Your task to perform on an android device: Do I have any events today? Image 0: 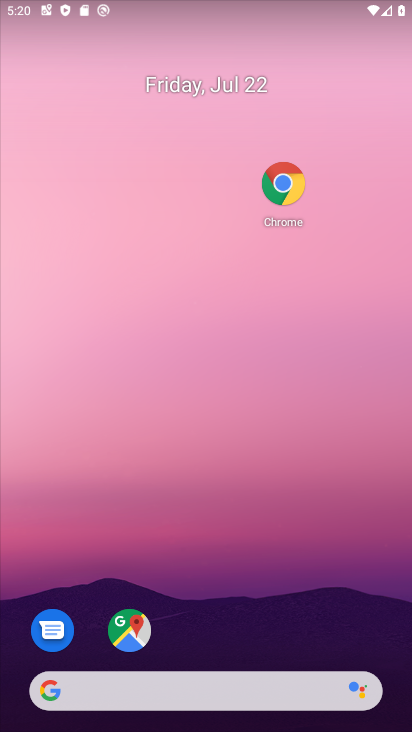
Step 0: drag from (184, 640) to (193, 304)
Your task to perform on an android device: Do I have any events today? Image 1: 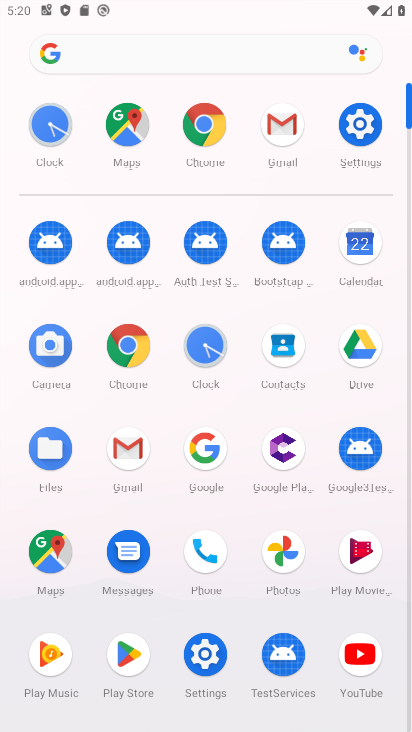
Step 1: drag from (193, 626) to (220, 458)
Your task to perform on an android device: Do I have any events today? Image 2: 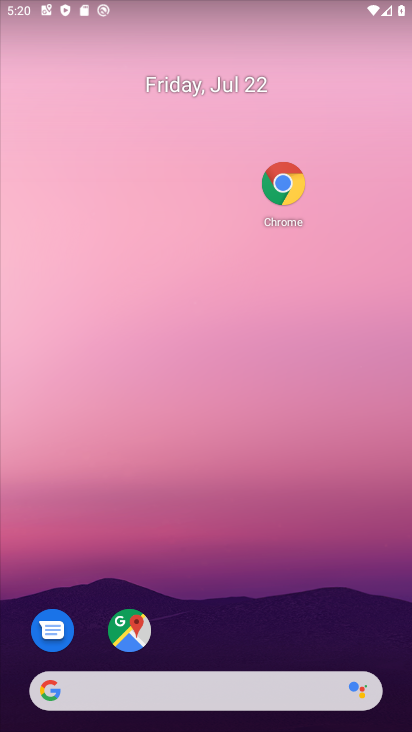
Step 2: click (170, 629)
Your task to perform on an android device: Do I have any events today? Image 3: 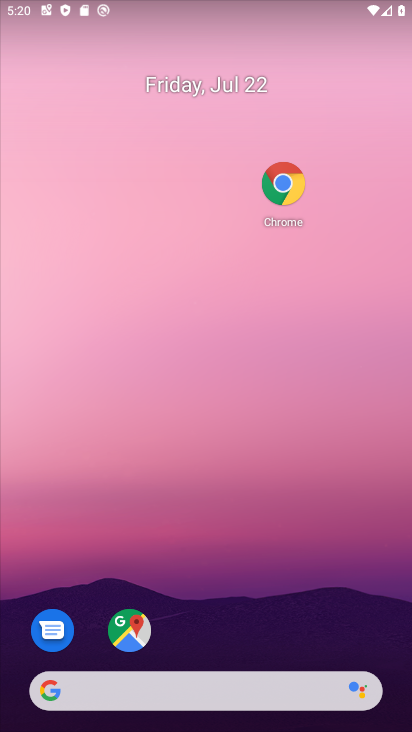
Step 3: drag from (199, 634) to (241, 164)
Your task to perform on an android device: Do I have any events today? Image 4: 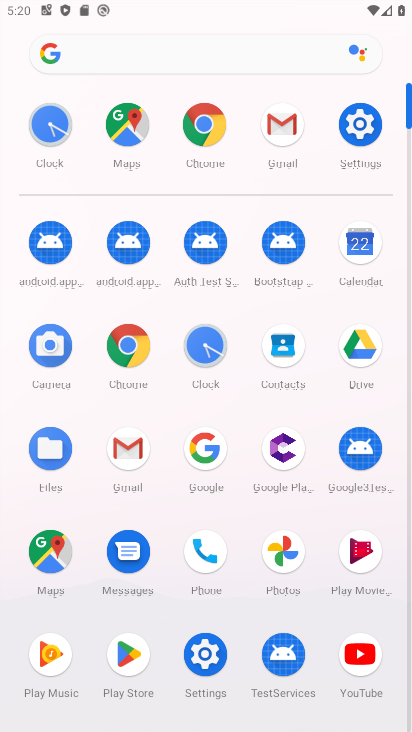
Step 4: click (351, 250)
Your task to perform on an android device: Do I have any events today? Image 5: 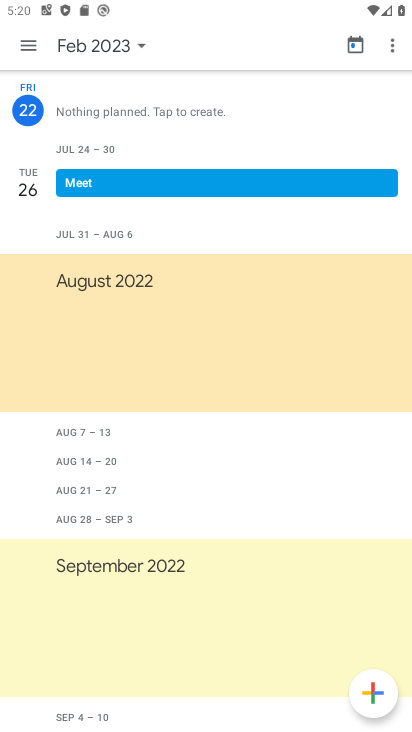
Step 5: click (134, 51)
Your task to perform on an android device: Do I have any events today? Image 6: 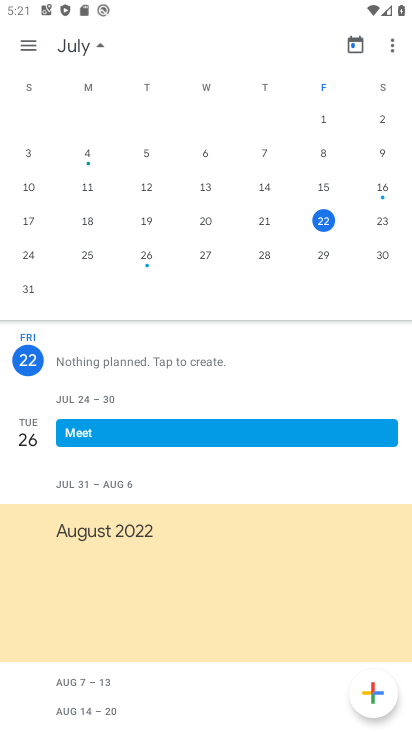
Step 6: task complete